Your task to perform on an android device: Go to internet settings Image 0: 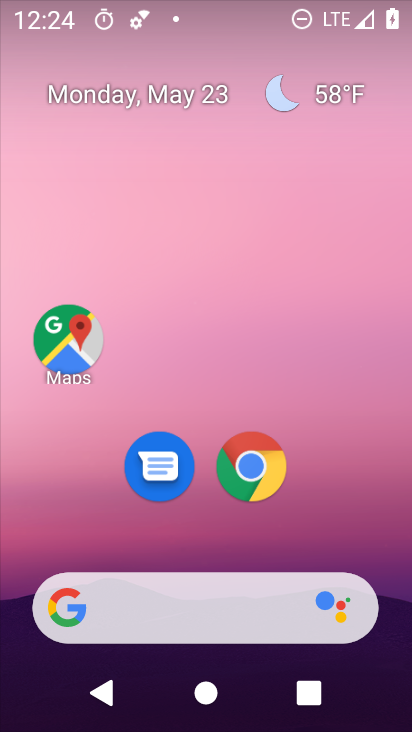
Step 0: drag from (197, 536) to (225, 58)
Your task to perform on an android device: Go to internet settings Image 1: 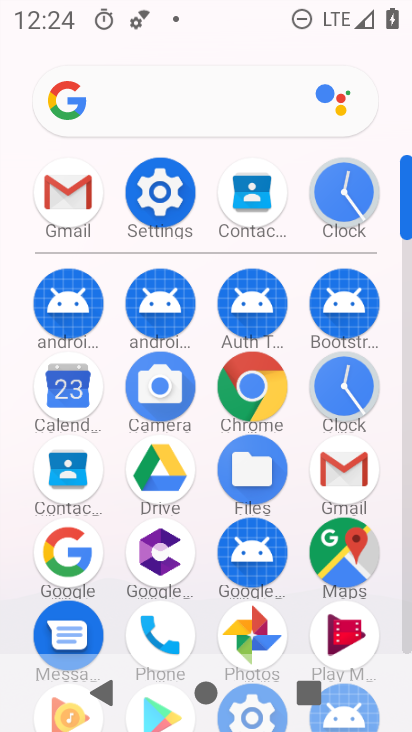
Step 1: click (155, 179)
Your task to perform on an android device: Go to internet settings Image 2: 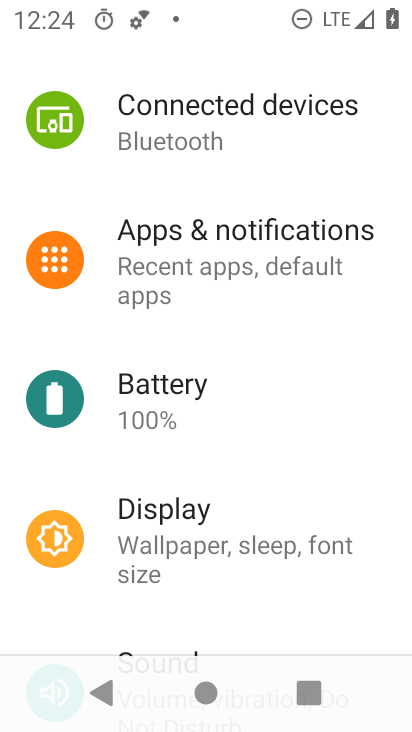
Step 2: drag from (212, 162) to (244, 604)
Your task to perform on an android device: Go to internet settings Image 3: 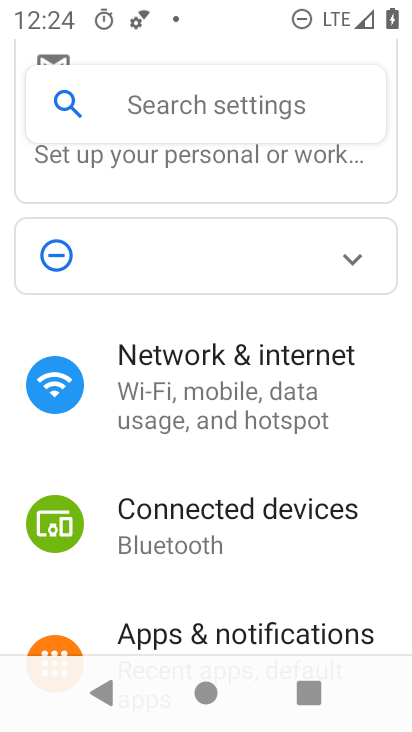
Step 3: click (196, 368)
Your task to perform on an android device: Go to internet settings Image 4: 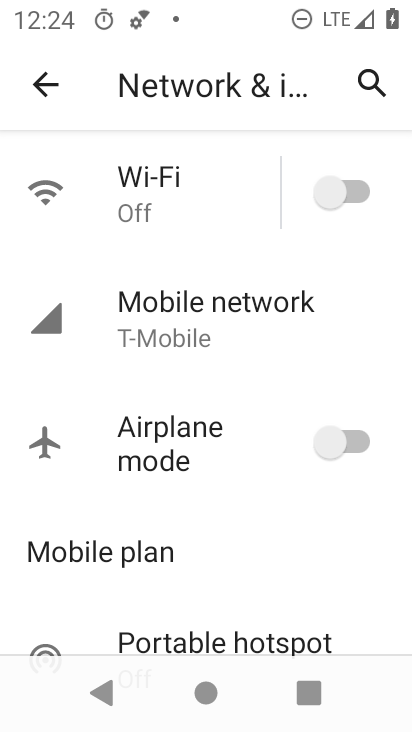
Step 4: click (188, 166)
Your task to perform on an android device: Go to internet settings Image 5: 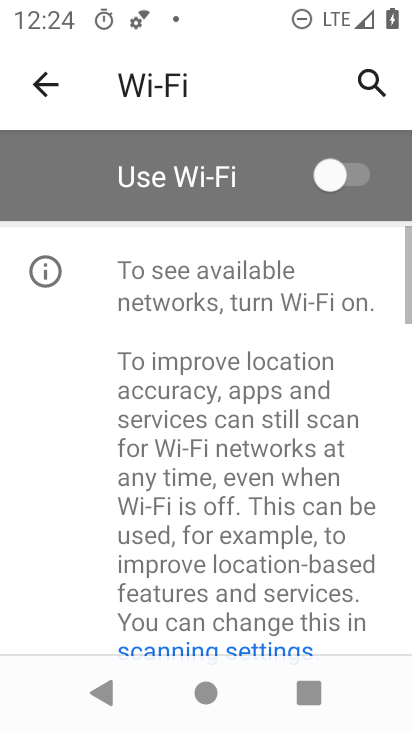
Step 5: click (340, 181)
Your task to perform on an android device: Go to internet settings Image 6: 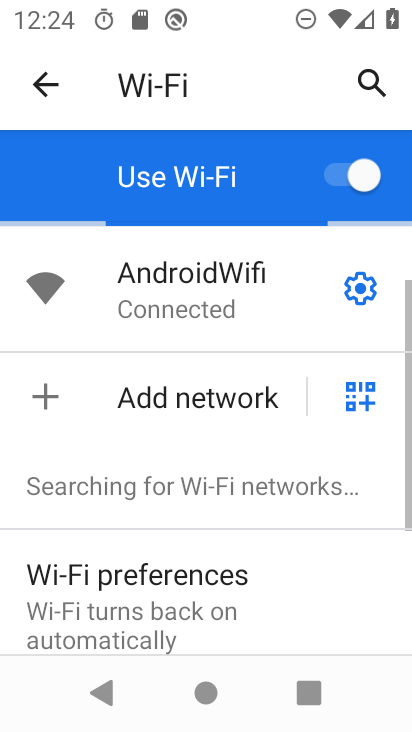
Step 6: click (365, 281)
Your task to perform on an android device: Go to internet settings Image 7: 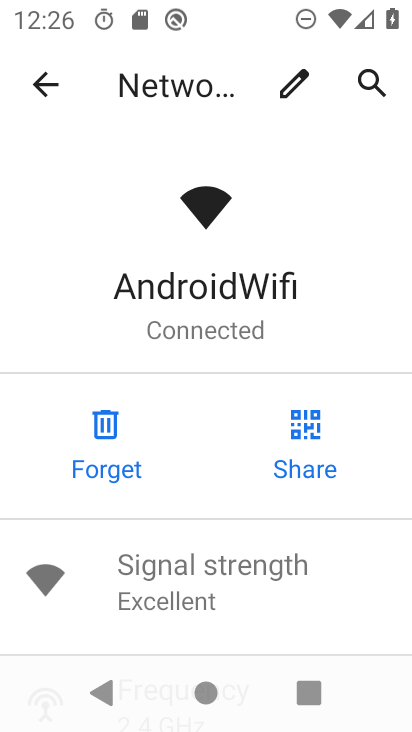
Step 7: task complete